Your task to perform on an android device: Add usb-b to the cart on bestbuy Image 0: 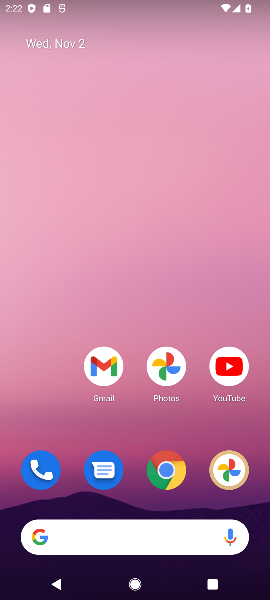
Step 0: drag from (155, 471) to (60, 3)
Your task to perform on an android device: Add usb-b to the cart on bestbuy Image 1: 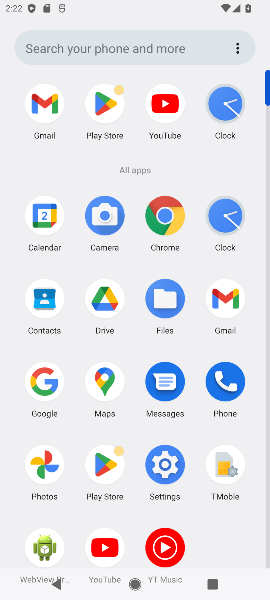
Step 1: click (40, 372)
Your task to perform on an android device: Add usb-b to the cart on bestbuy Image 2: 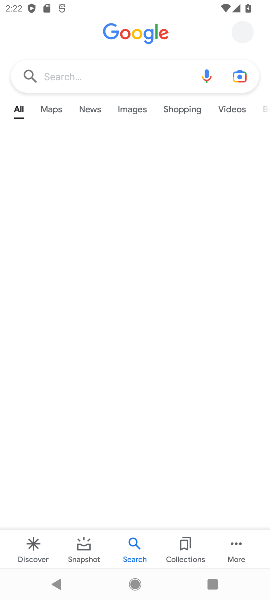
Step 2: click (117, 73)
Your task to perform on an android device: Add usb-b to the cart on bestbuy Image 3: 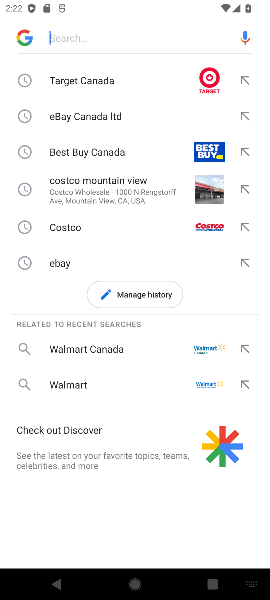
Step 3: click (72, 33)
Your task to perform on an android device: Add usb-b to the cart on bestbuy Image 4: 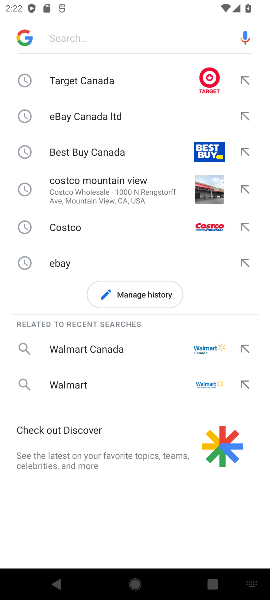
Step 4: type "bestbuy "
Your task to perform on an android device: Add usb-b to the cart on bestbuy Image 5: 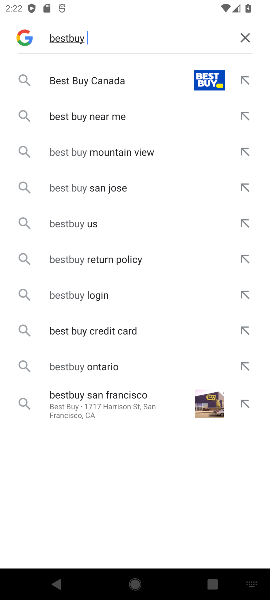
Step 5: click (94, 83)
Your task to perform on an android device: Add usb-b to the cart on bestbuy Image 6: 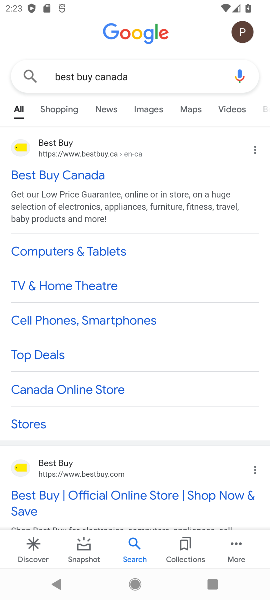
Step 6: click (18, 138)
Your task to perform on an android device: Add usb-b to the cart on bestbuy Image 7: 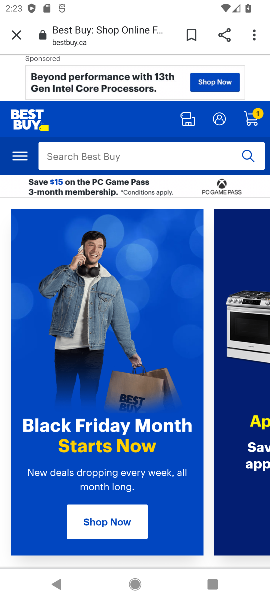
Step 7: click (147, 158)
Your task to perform on an android device: Add usb-b to the cart on bestbuy Image 8: 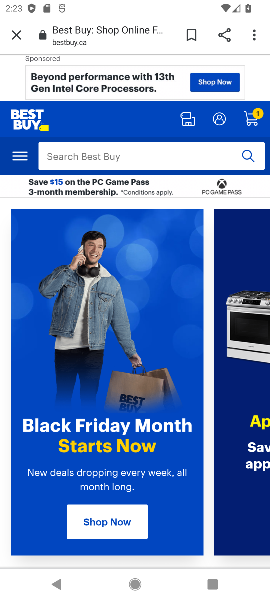
Step 8: click (154, 149)
Your task to perform on an android device: Add usb-b to the cart on bestbuy Image 9: 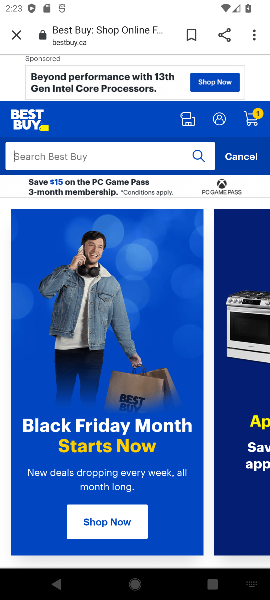
Step 9: type "usb "
Your task to perform on an android device: Add usb-b to the cart on bestbuy Image 10: 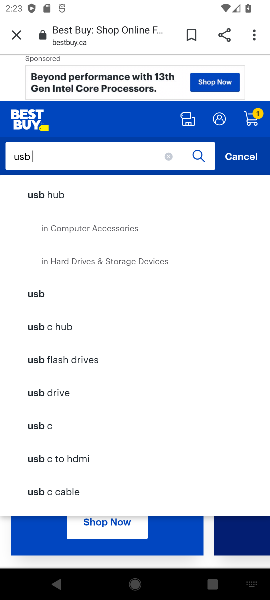
Step 10: click (30, 294)
Your task to perform on an android device: Add usb-b to the cart on bestbuy Image 11: 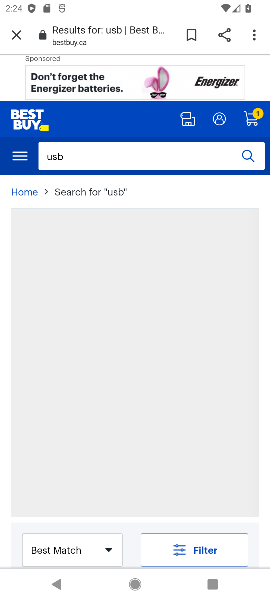
Step 11: click (246, 151)
Your task to perform on an android device: Add usb-b to the cart on bestbuy Image 12: 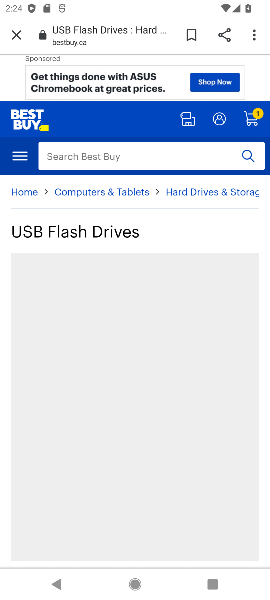
Step 12: drag from (165, 514) to (200, 188)
Your task to perform on an android device: Add usb-b to the cart on bestbuy Image 13: 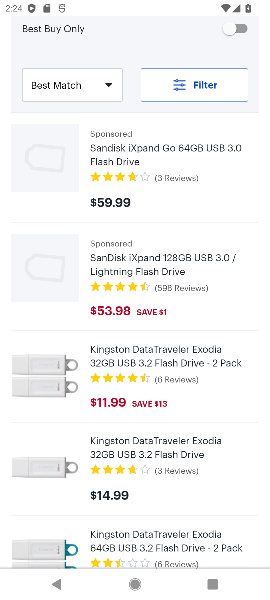
Step 13: drag from (184, 477) to (214, 105)
Your task to perform on an android device: Add usb-b to the cart on bestbuy Image 14: 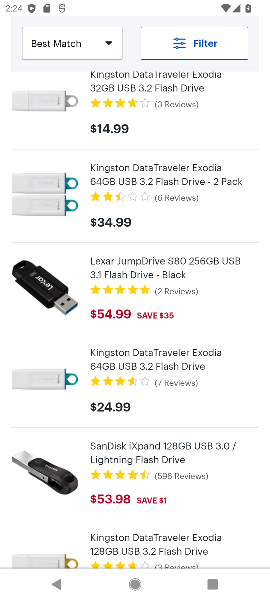
Step 14: drag from (163, 103) to (114, 227)
Your task to perform on an android device: Add usb-b to the cart on bestbuy Image 15: 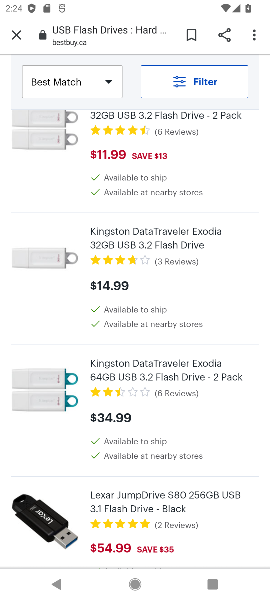
Step 15: click (167, 490)
Your task to perform on an android device: Add usb-b to the cart on bestbuy Image 16: 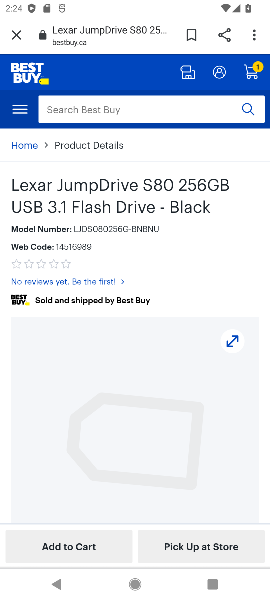
Step 16: drag from (182, 495) to (185, 183)
Your task to perform on an android device: Add usb-b to the cart on bestbuy Image 17: 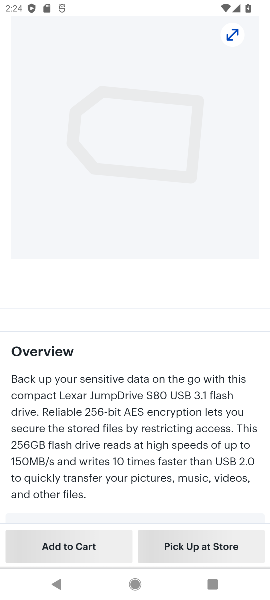
Step 17: drag from (113, 466) to (147, 259)
Your task to perform on an android device: Add usb-b to the cart on bestbuy Image 18: 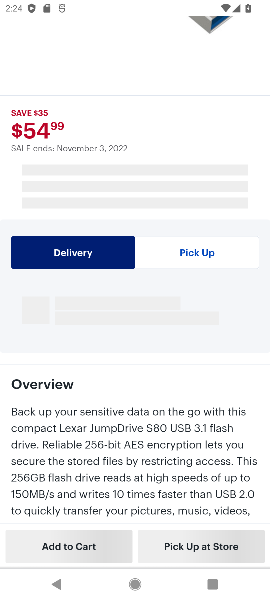
Step 18: click (66, 543)
Your task to perform on an android device: Add usb-b to the cart on bestbuy Image 19: 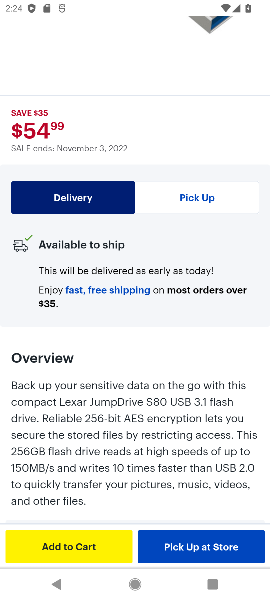
Step 19: click (75, 551)
Your task to perform on an android device: Add usb-b to the cart on bestbuy Image 20: 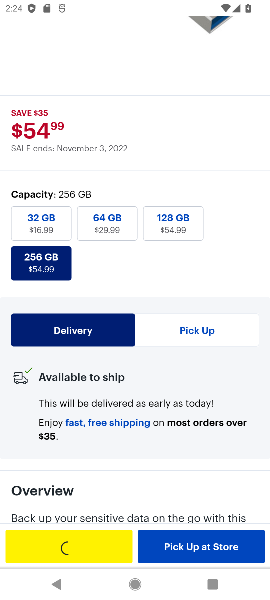
Step 20: task complete